Your task to perform on an android device: snooze an email in the gmail app Image 0: 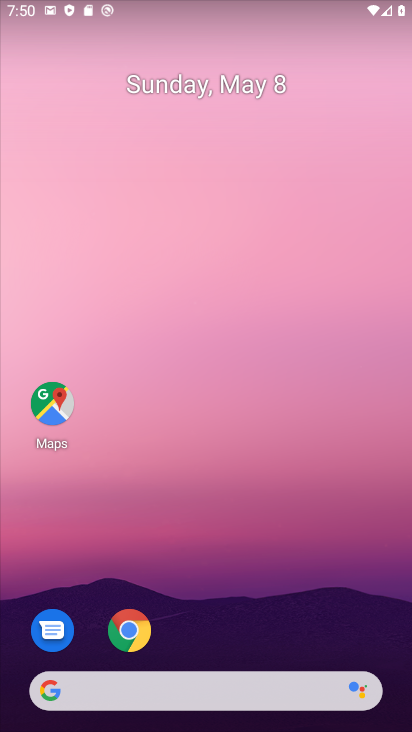
Step 0: drag from (200, 662) to (180, 38)
Your task to perform on an android device: snooze an email in the gmail app Image 1: 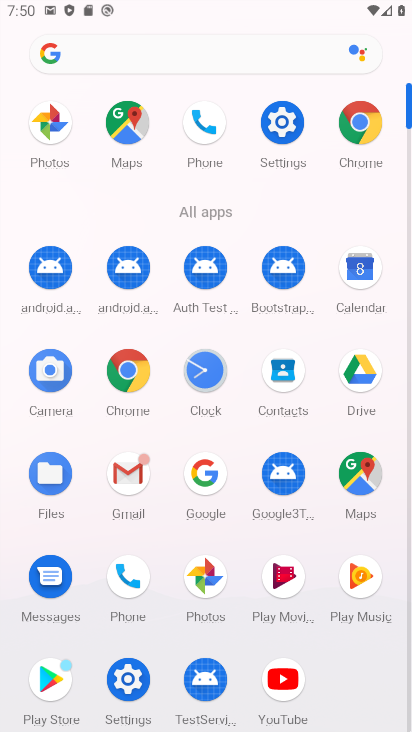
Step 1: click (111, 496)
Your task to perform on an android device: snooze an email in the gmail app Image 2: 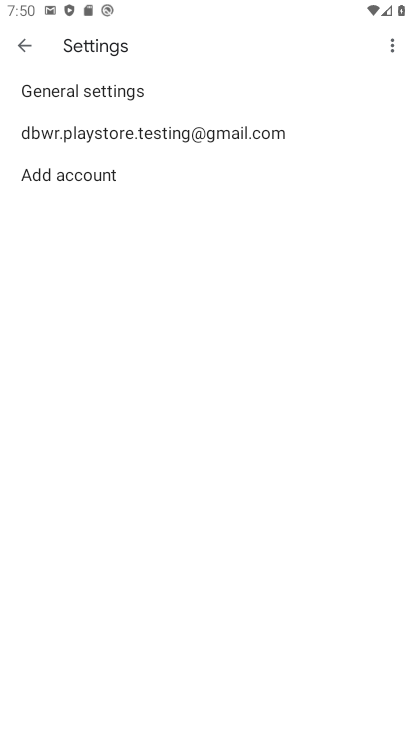
Step 2: click (22, 53)
Your task to perform on an android device: snooze an email in the gmail app Image 3: 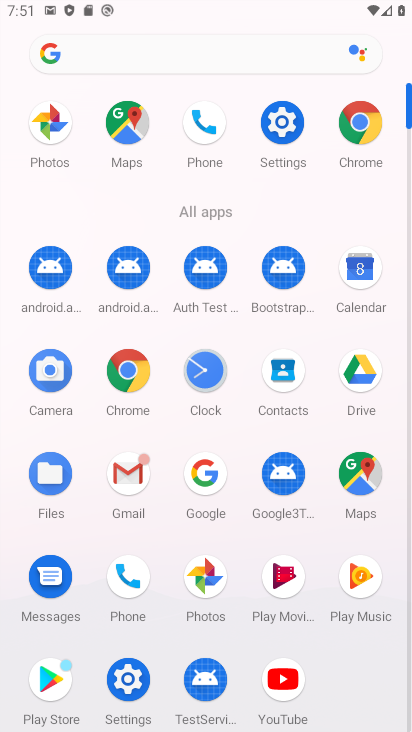
Step 3: click (118, 469)
Your task to perform on an android device: snooze an email in the gmail app Image 4: 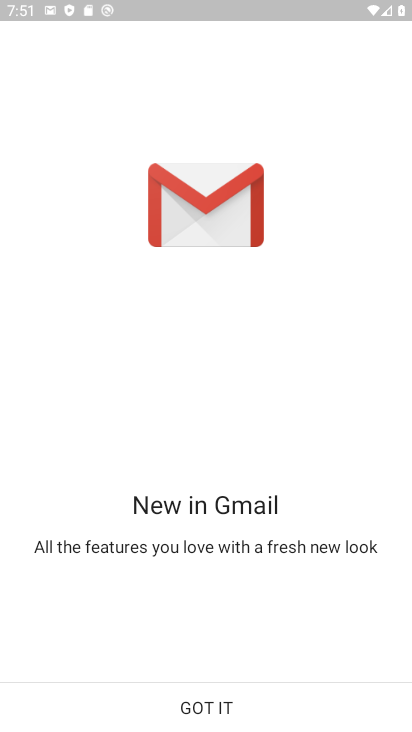
Step 4: click (198, 707)
Your task to perform on an android device: snooze an email in the gmail app Image 5: 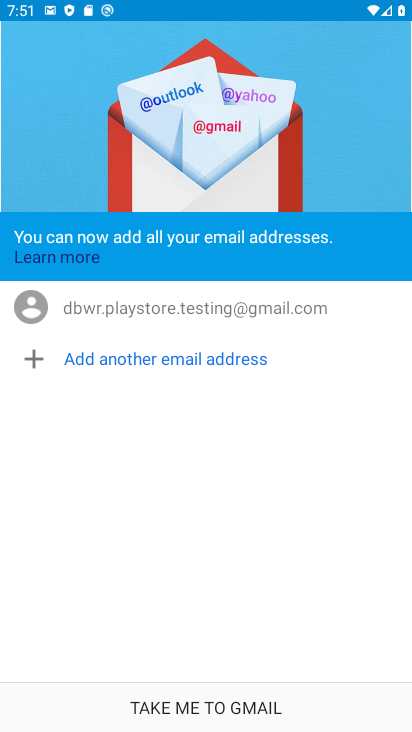
Step 5: click (198, 707)
Your task to perform on an android device: snooze an email in the gmail app Image 6: 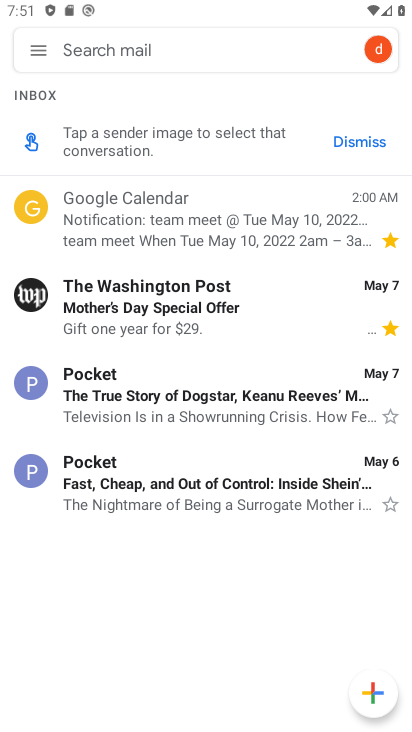
Step 6: click (48, 50)
Your task to perform on an android device: snooze an email in the gmail app Image 7: 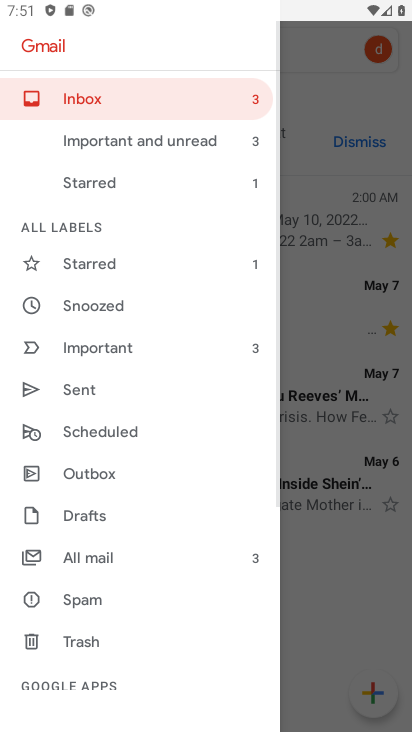
Step 7: click (336, 198)
Your task to perform on an android device: snooze an email in the gmail app Image 8: 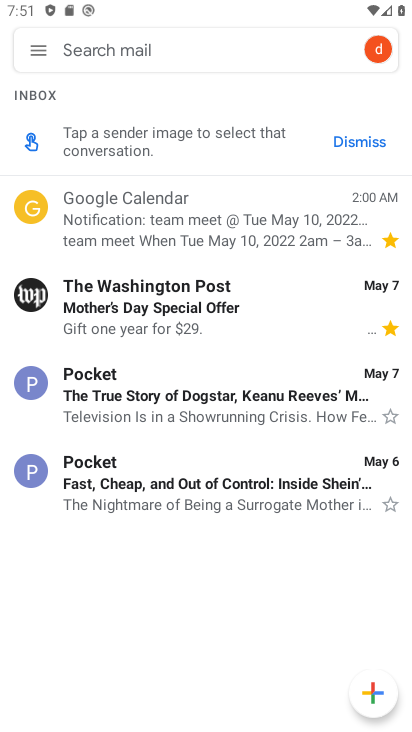
Step 8: click (220, 216)
Your task to perform on an android device: snooze an email in the gmail app Image 9: 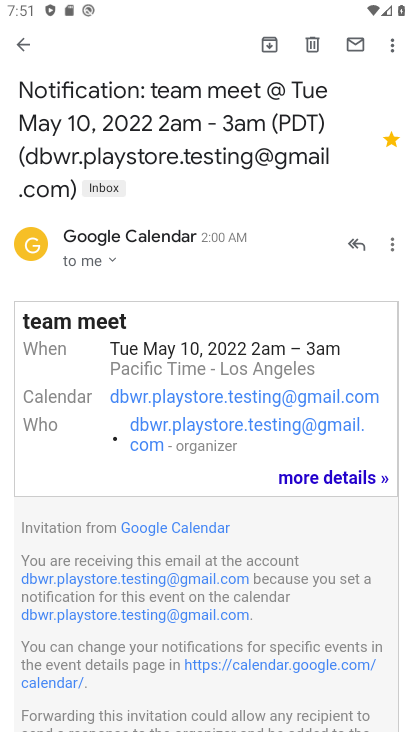
Step 9: click (388, 39)
Your task to perform on an android device: snooze an email in the gmail app Image 10: 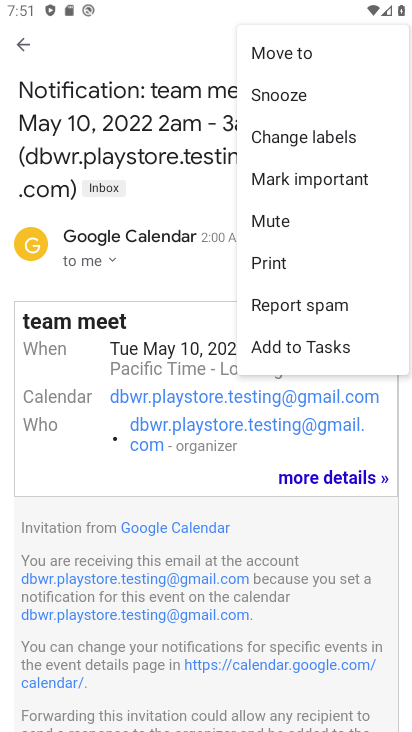
Step 10: click (291, 95)
Your task to perform on an android device: snooze an email in the gmail app Image 11: 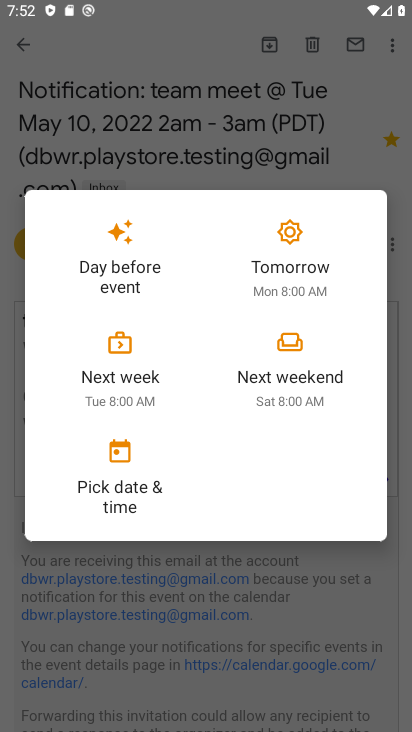
Step 11: click (308, 248)
Your task to perform on an android device: snooze an email in the gmail app Image 12: 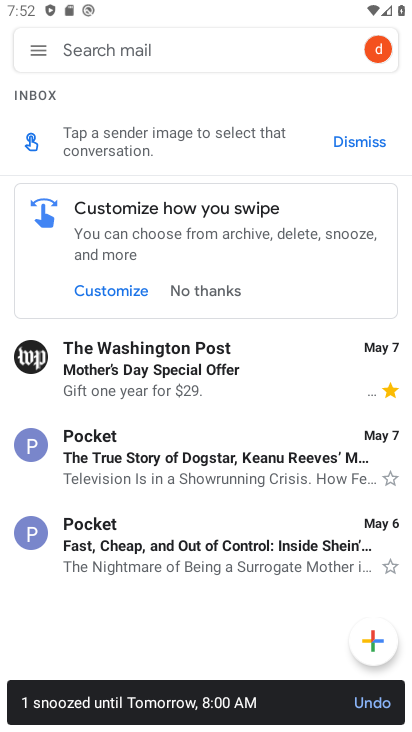
Step 12: task complete